Your task to perform on an android device: open device folders in google photos Image 0: 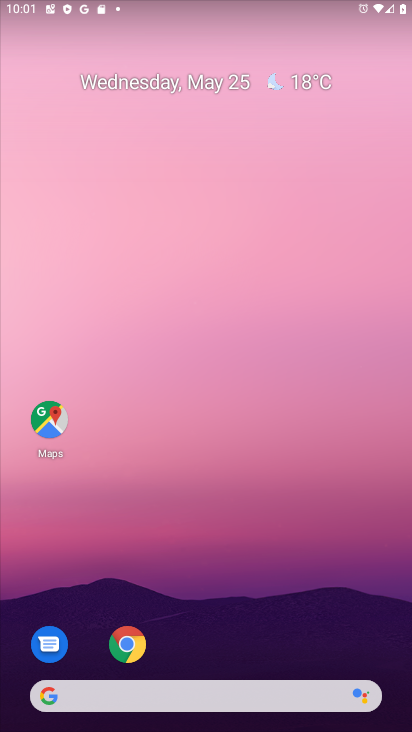
Step 0: press home button
Your task to perform on an android device: open device folders in google photos Image 1: 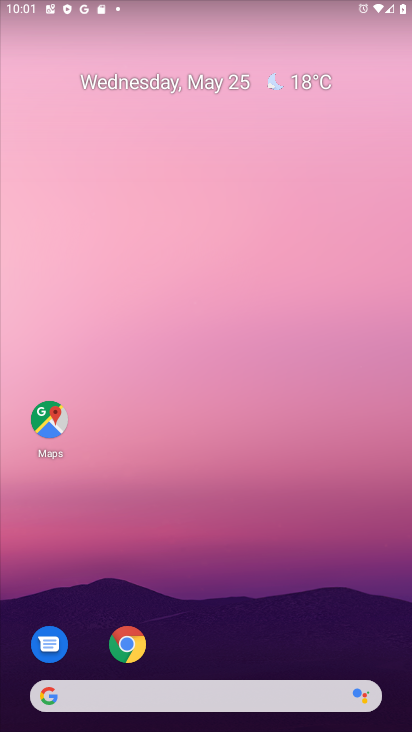
Step 1: drag from (207, 668) to (201, 50)
Your task to perform on an android device: open device folders in google photos Image 2: 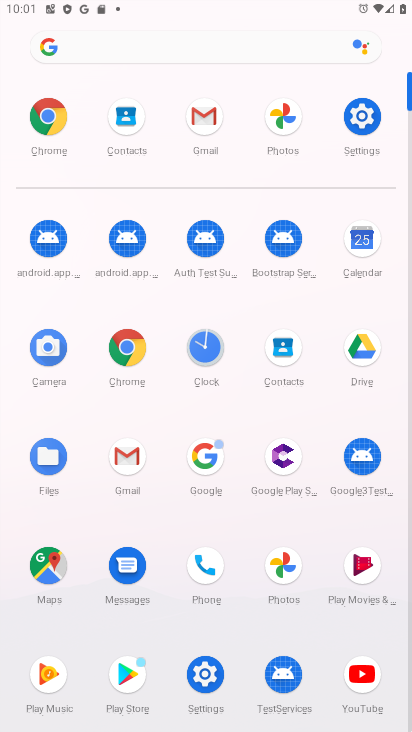
Step 2: click (281, 108)
Your task to perform on an android device: open device folders in google photos Image 3: 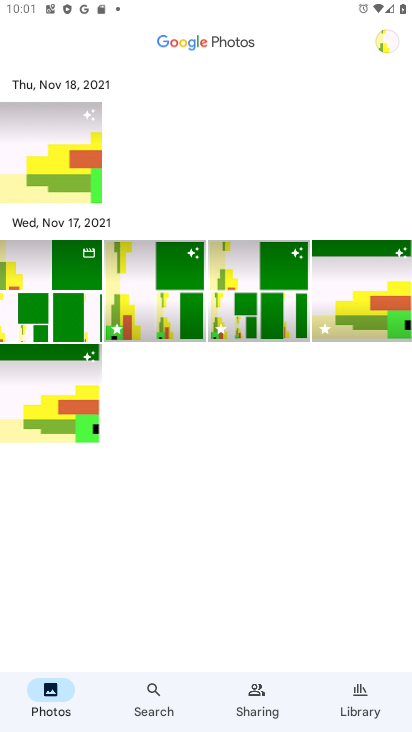
Step 3: click (152, 688)
Your task to perform on an android device: open device folders in google photos Image 4: 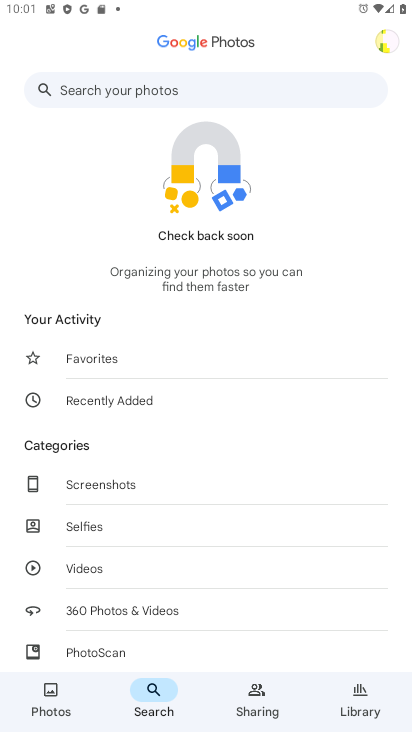
Step 4: click (113, 88)
Your task to perform on an android device: open device folders in google photos Image 5: 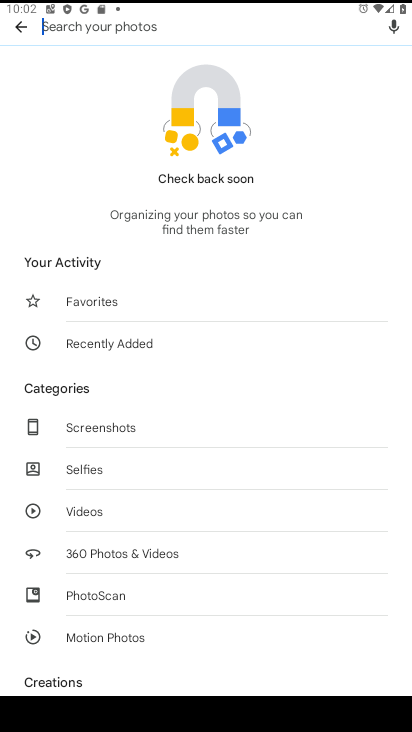
Step 5: type "device"
Your task to perform on an android device: open device folders in google photos Image 6: 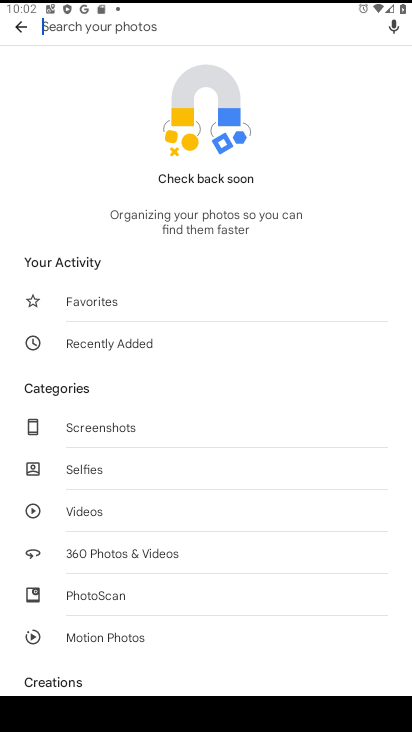
Step 6: click (178, 165)
Your task to perform on an android device: open device folders in google photos Image 7: 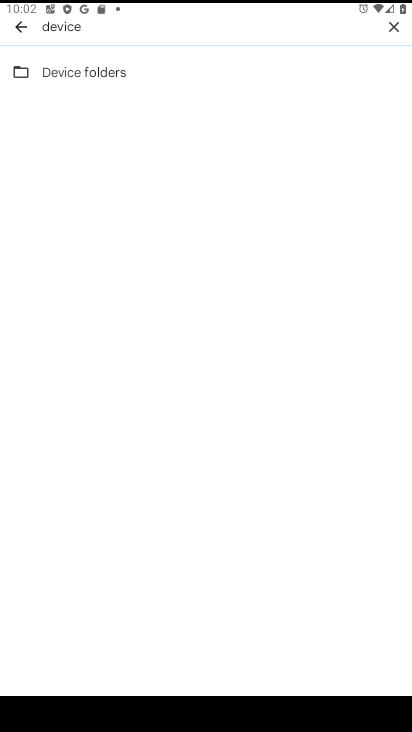
Step 7: click (107, 72)
Your task to perform on an android device: open device folders in google photos Image 8: 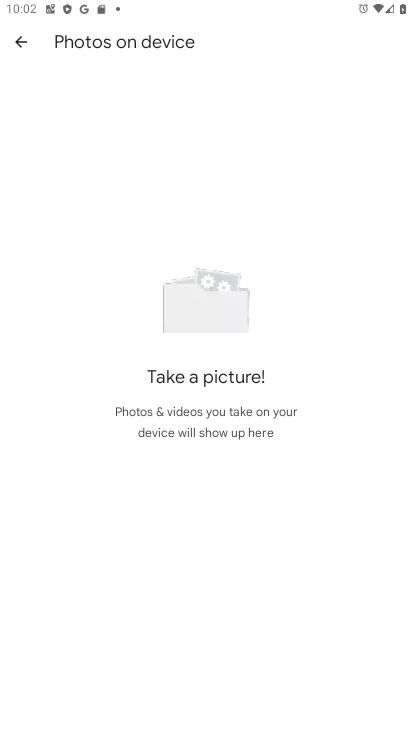
Step 8: task complete